Your task to perform on an android device: Go to Google maps Image 0: 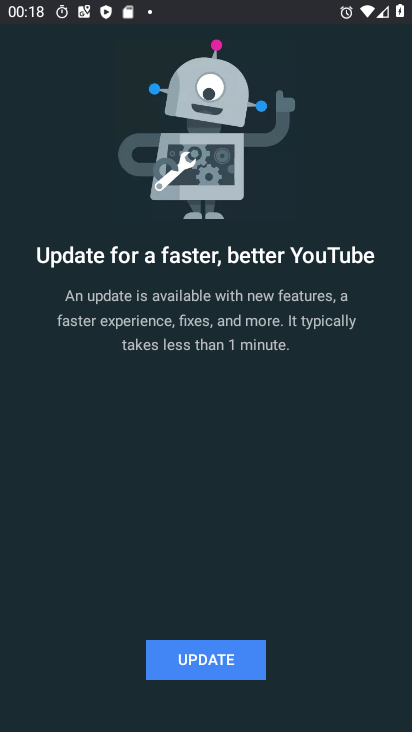
Step 0: press home button
Your task to perform on an android device: Go to Google maps Image 1: 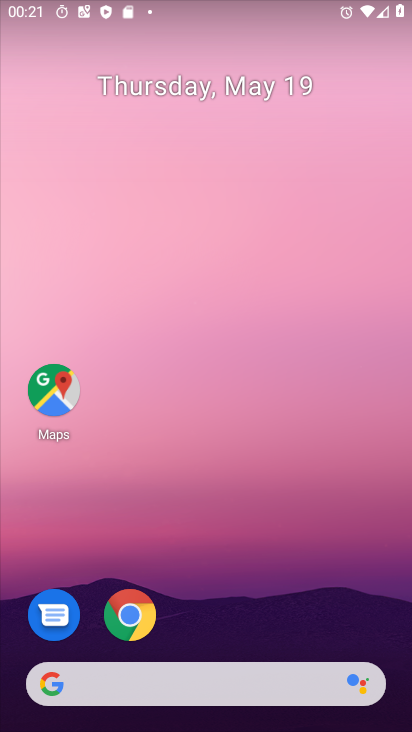
Step 1: click (37, 387)
Your task to perform on an android device: Go to Google maps Image 2: 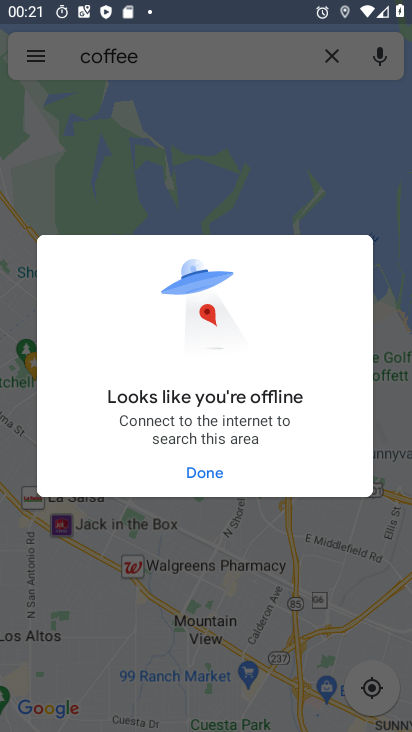
Step 2: click (235, 477)
Your task to perform on an android device: Go to Google maps Image 3: 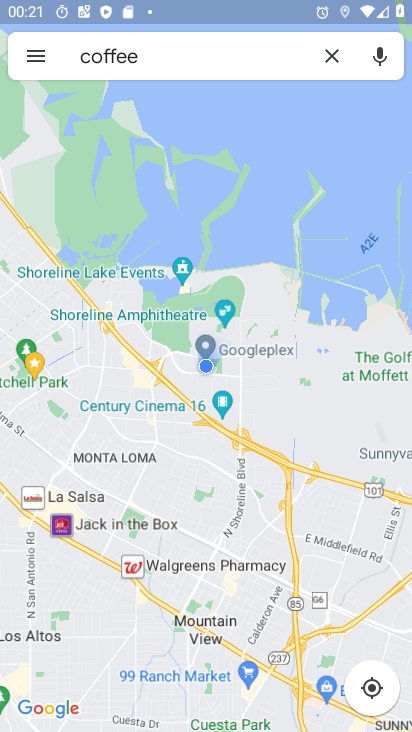
Step 3: click (331, 53)
Your task to perform on an android device: Go to Google maps Image 4: 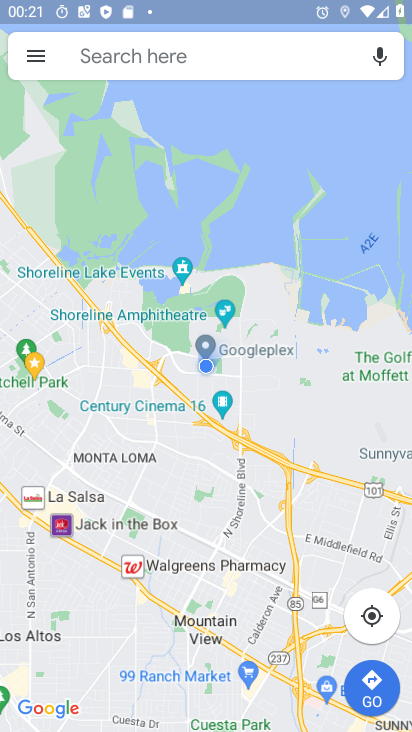
Step 4: task complete